Your task to perform on an android device: turn on improve location accuracy Image 0: 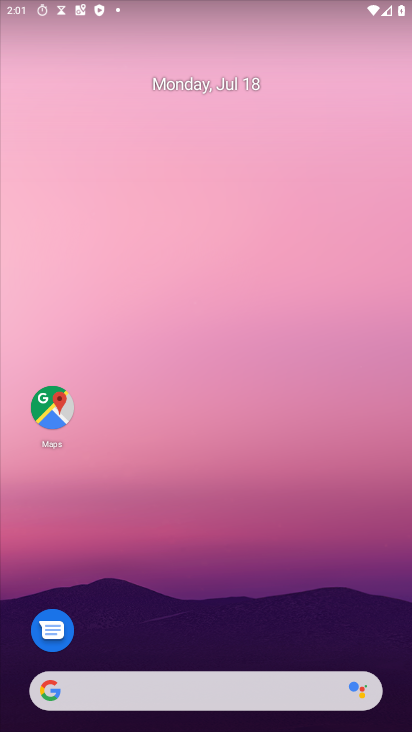
Step 0: drag from (113, 688) to (299, 31)
Your task to perform on an android device: turn on improve location accuracy Image 1: 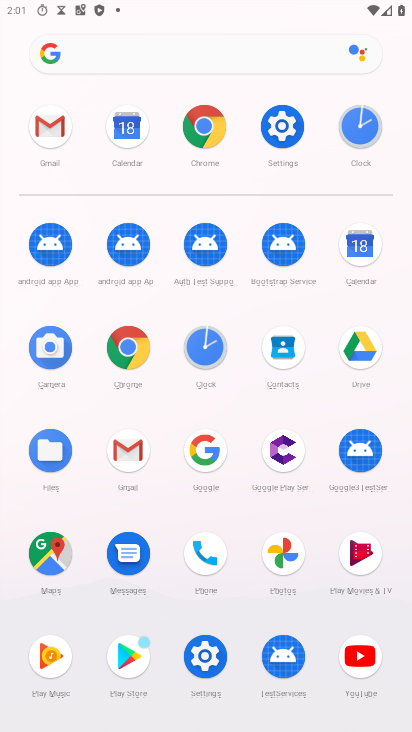
Step 1: click (277, 112)
Your task to perform on an android device: turn on improve location accuracy Image 2: 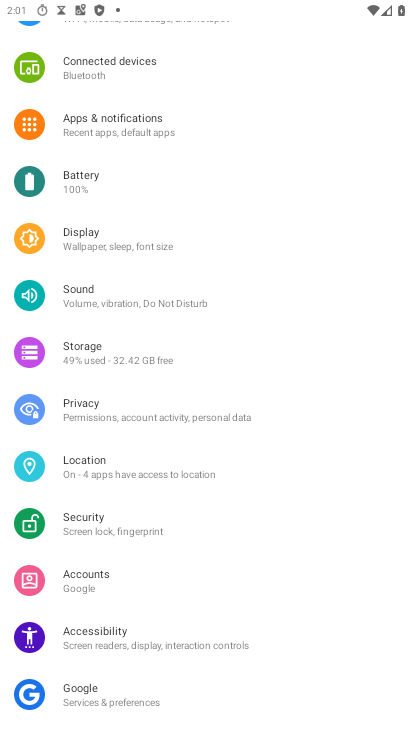
Step 2: click (99, 474)
Your task to perform on an android device: turn on improve location accuracy Image 3: 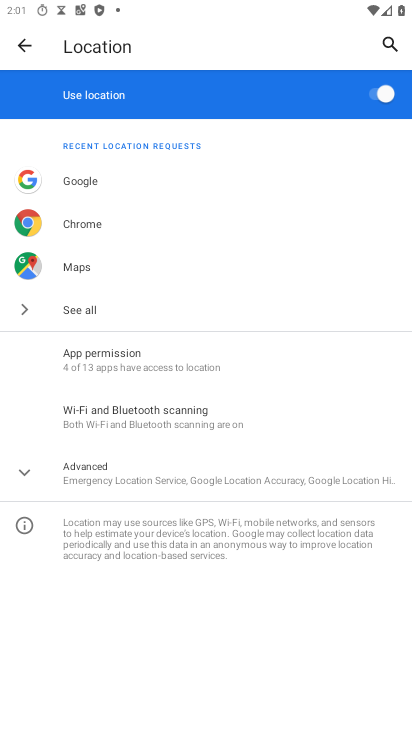
Step 3: click (123, 475)
Your task to perform on an android device: turn on improve location accuracy Image 4: 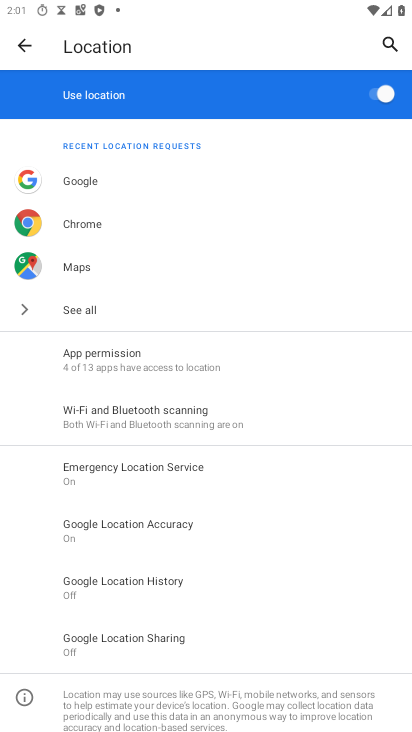
Step 4: click (172, 535)
Your task to perform on an android device: turn on improve location accuracy Image 5: 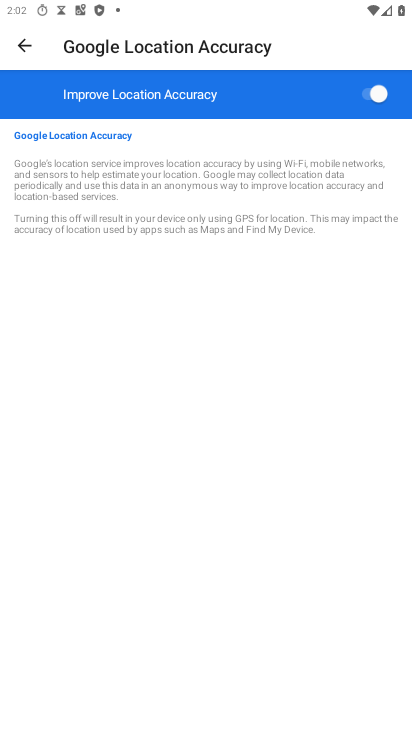
Step 5: task complete